Your task to perform on an android device: turn smart compose on in the gmail app Image 0: 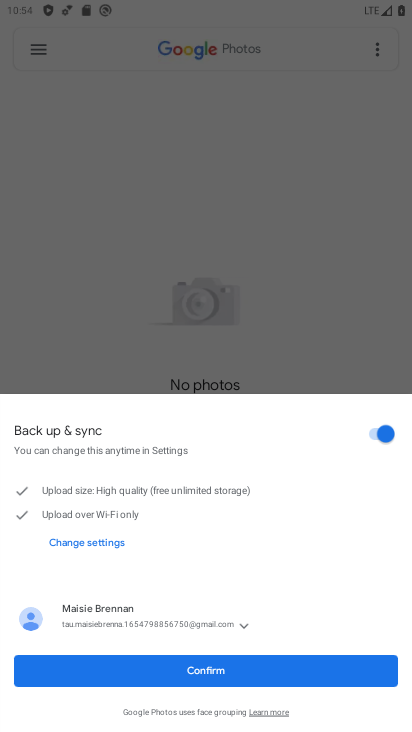
Step 0: press home button
Your task to perform on an android device: turn smart compose on in the gmail app Image 1: 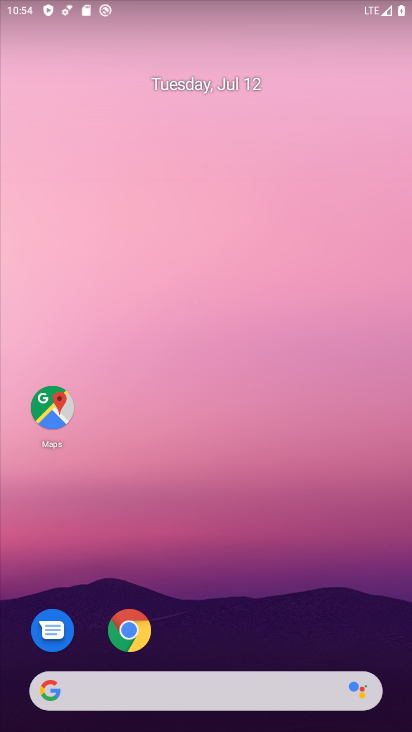
Step 1: drag from (378, 658) to (211, 35)
Your task to perform on an android device: turn smart compose on in the gmail app Image 2: 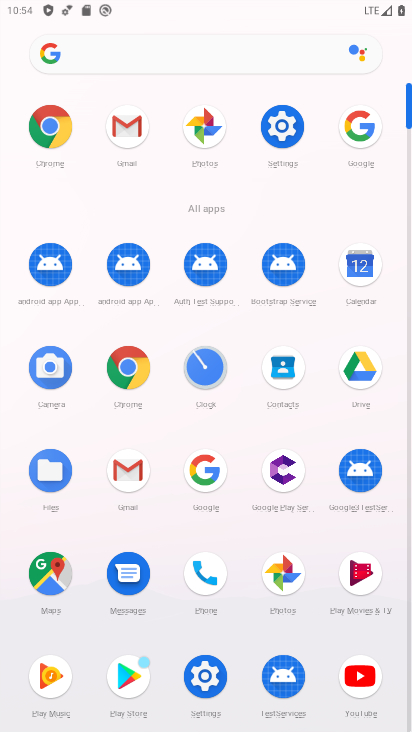
Step 2: click (137, 479)
Your task to perform on an android device: turn smart compose on in the gmail app Image 3: 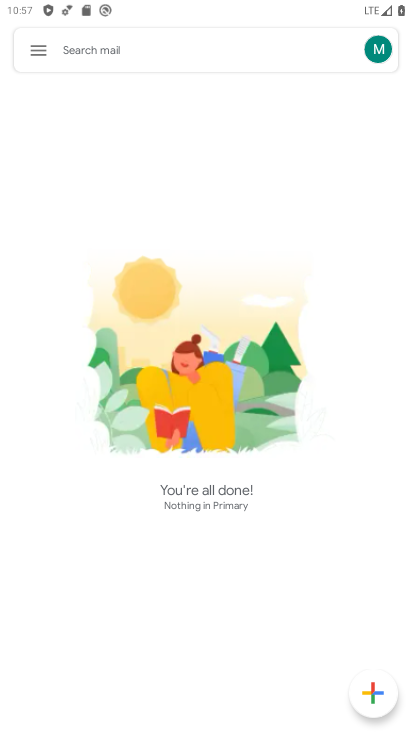
Step 3: click (34, 58)
Your task to perform on an android device: turn smart compose on in the gmail app Image 4: 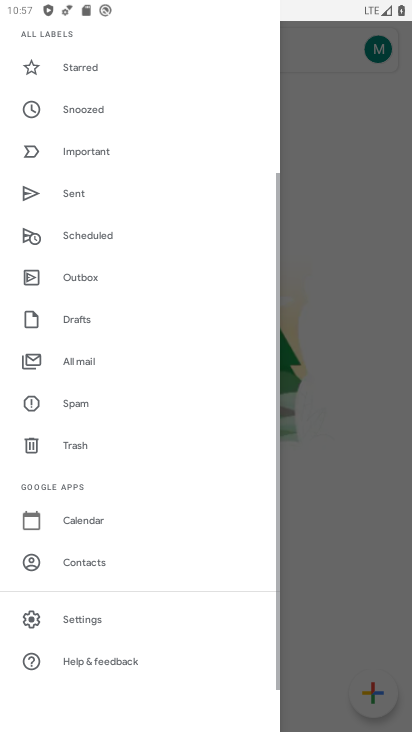
Step 4: click (61, 629)
Your task to perform on an android device: turn smart compose on in the gmail app Image 5: 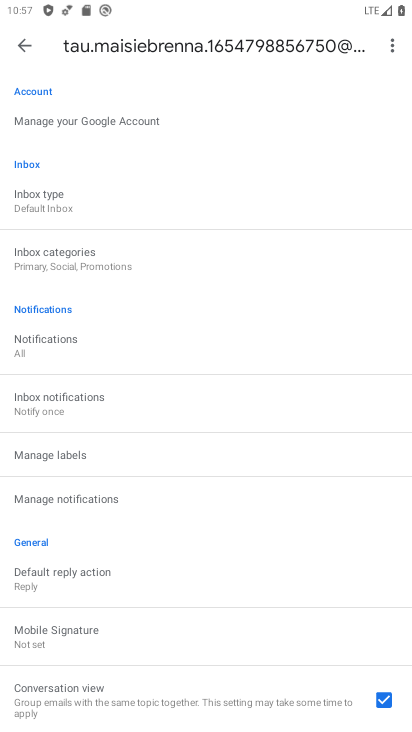
Step 5: task complete